Your task to perform on an android device: set the stopwatch Image 0: 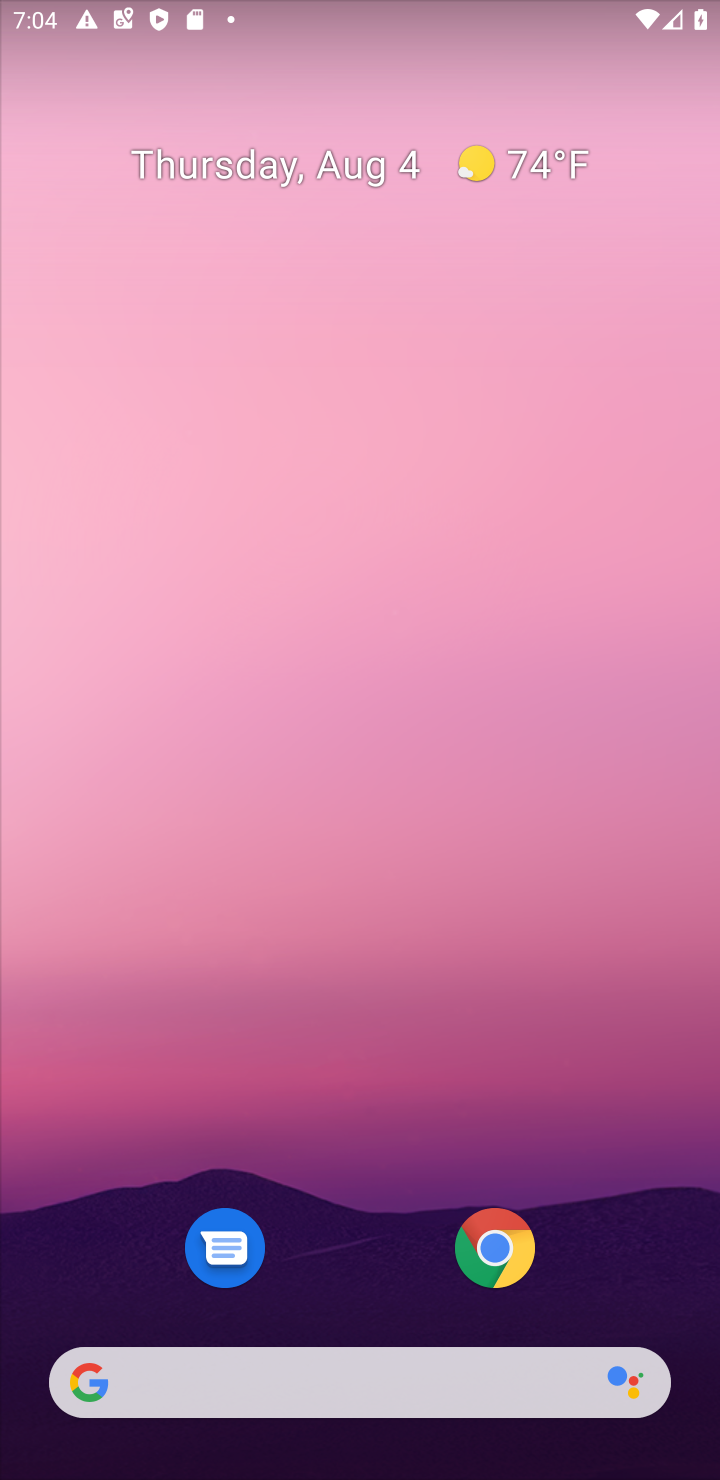
Step 0: drag from (462, 1402) to (307, 541)
Your task to perform on an android device: set the stopwatch Image 1: 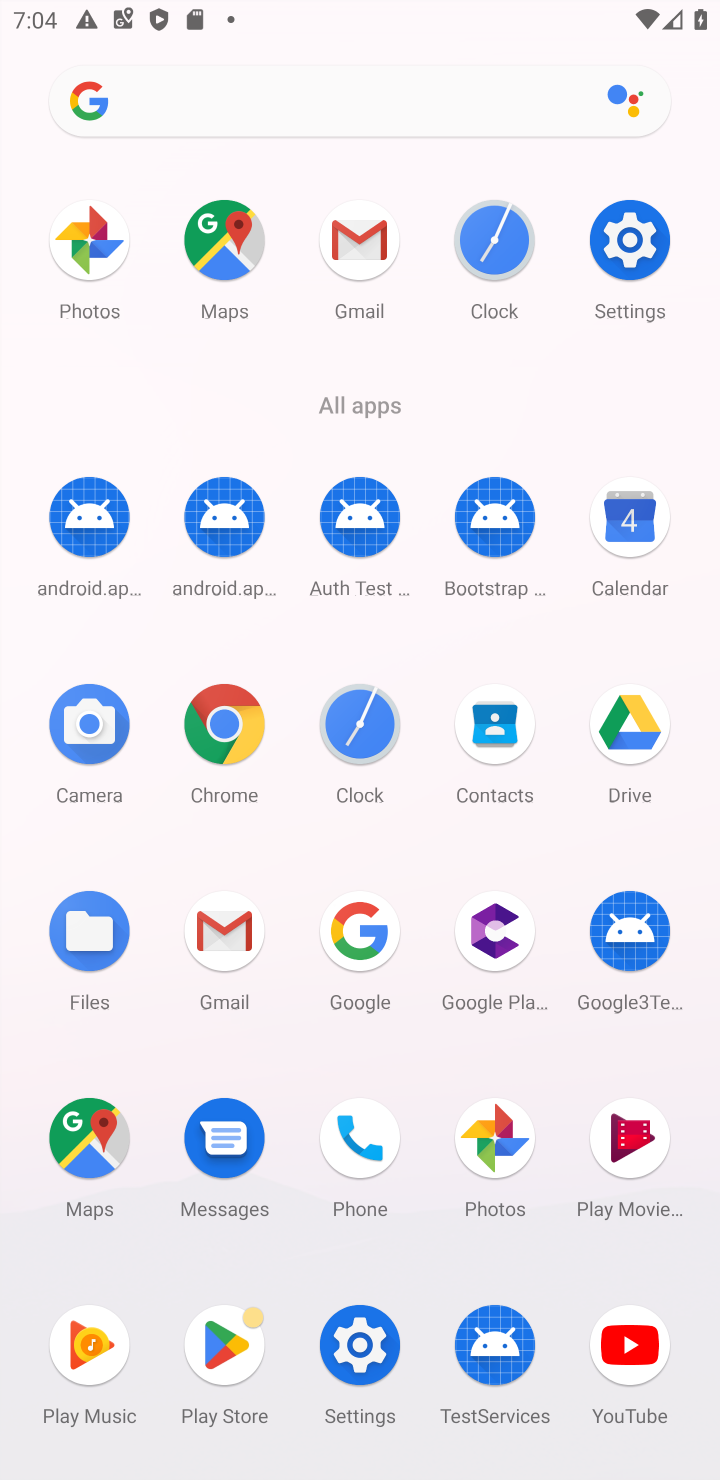
Step 1: click (507, 238)
Your task to perform on an android device: set the stopwatch Image 2: 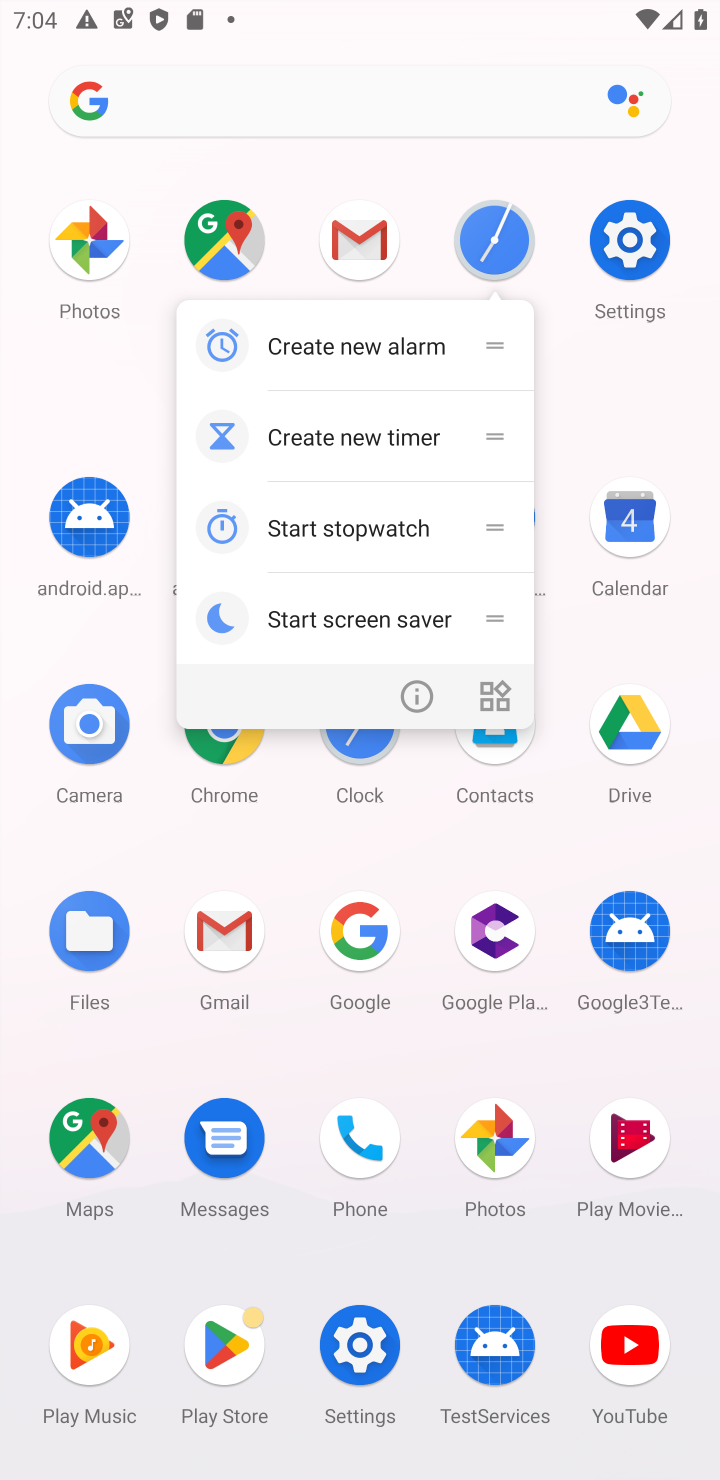
Step 2: click (513, 232)
Your task to perform on an android device: set the stopwatch Image 3: 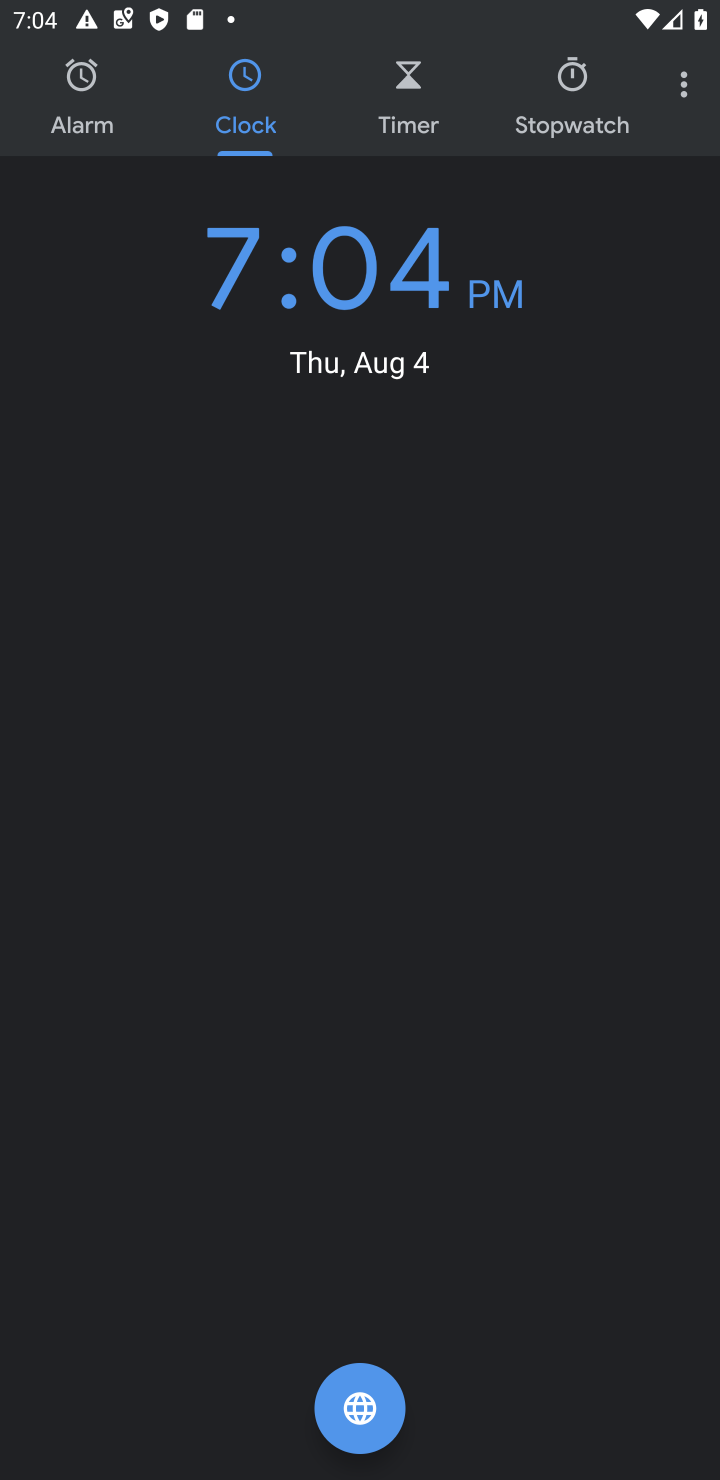
Step 3: click (560, 78)
Your task to perform on an android device: set the stopwatch Image 4: 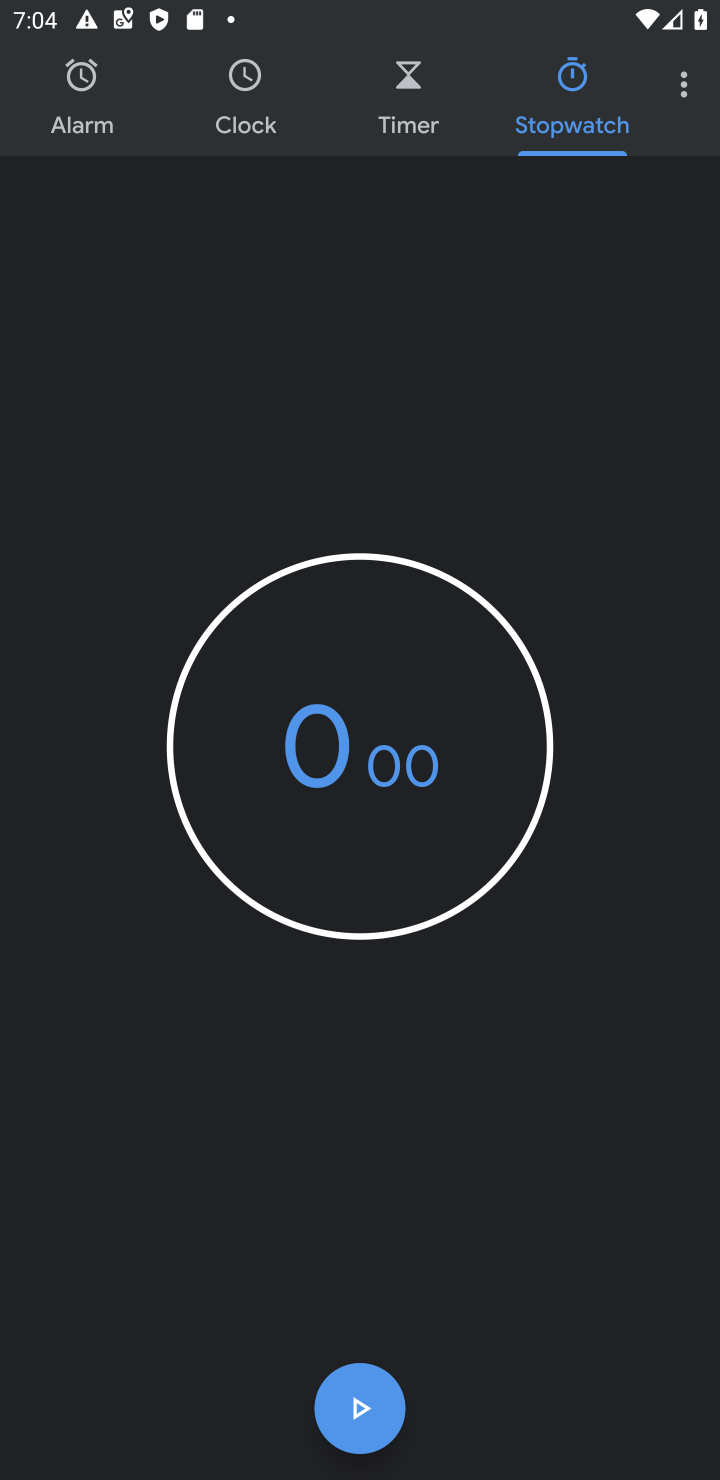
Step 4: click (380, 1422)
Your task to perform on an android device: set the stopwatch Image 5: 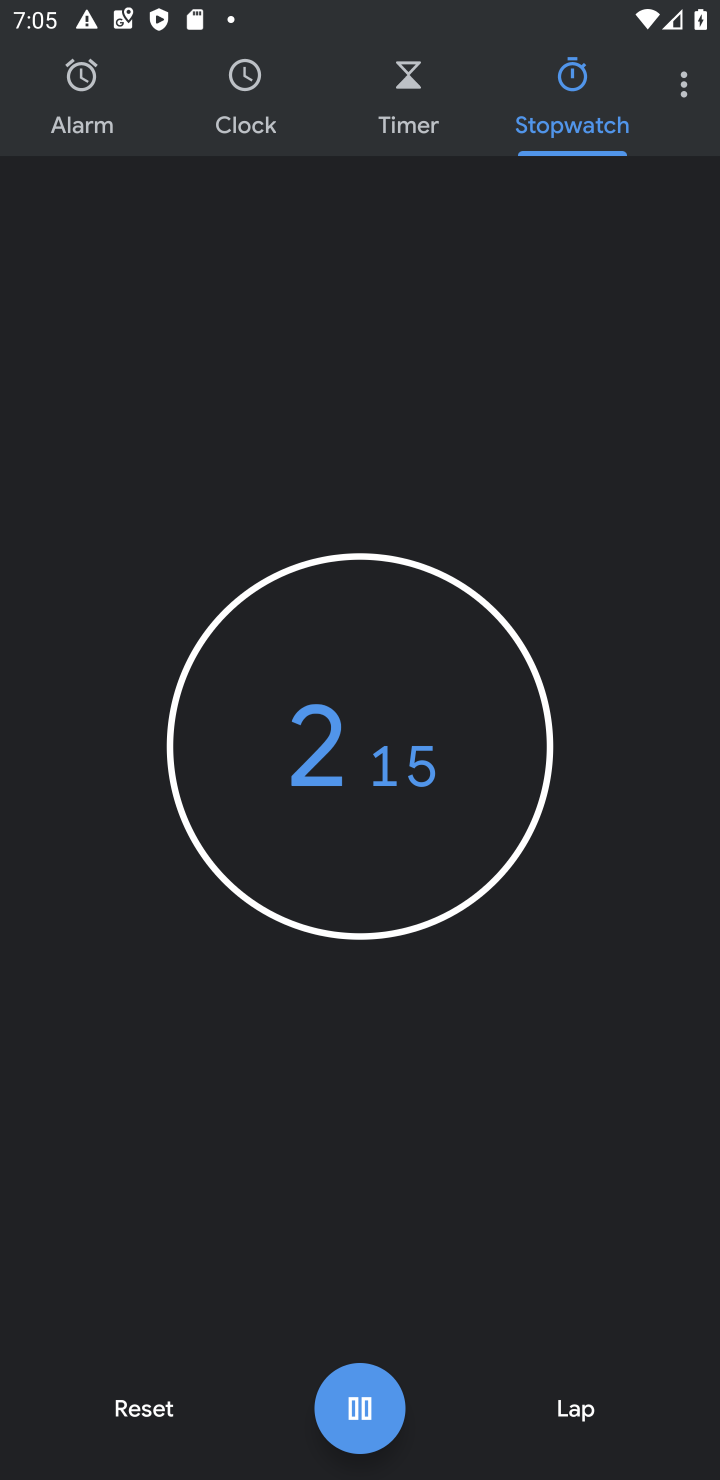
Step 5: click (360, 1413)
Your task to perform on an android device: set the stopwatch Image 6: 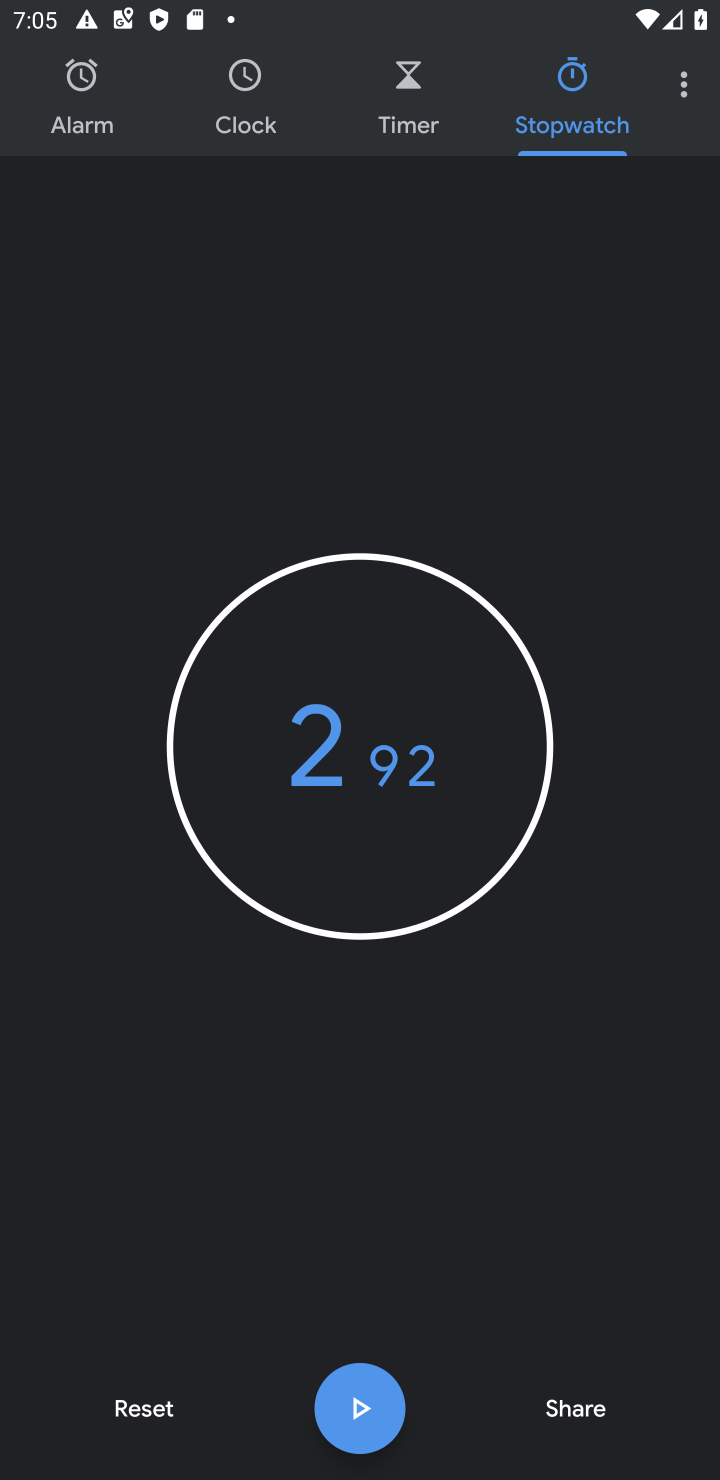
Step 6: task complete